Your task to perform on an android device: read, delete, or share a saved page in the chrome app Image 0: 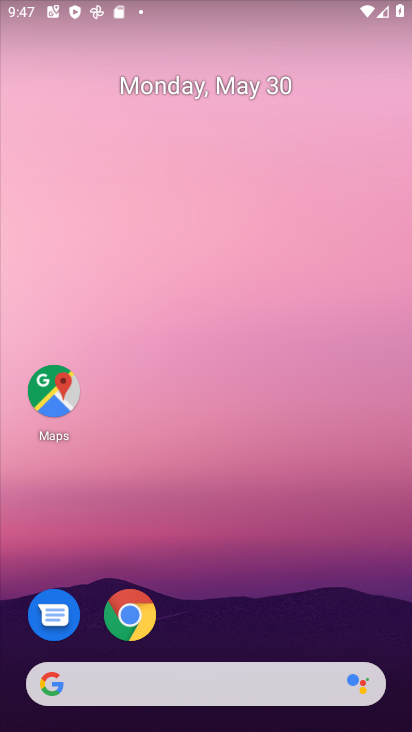
Step 0: click (134, 611)
Your task to perform on an android device: read, delete, or share a saved page in the chrome app Image 1: 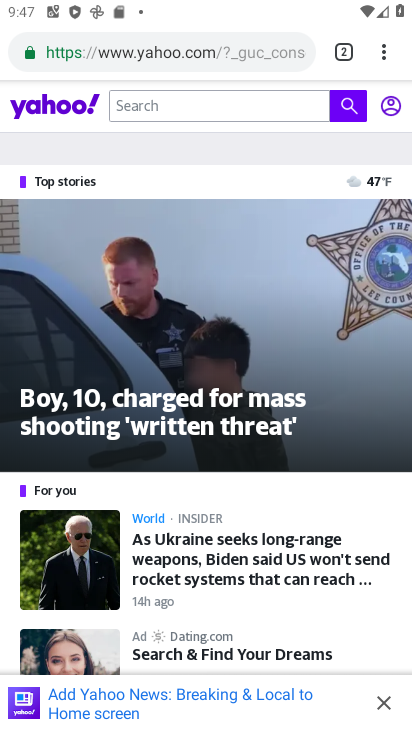
Step 1: click (385, 45)
Your task to perform on an android device: read, delete, or share a saved page in the chrome app Image 2: 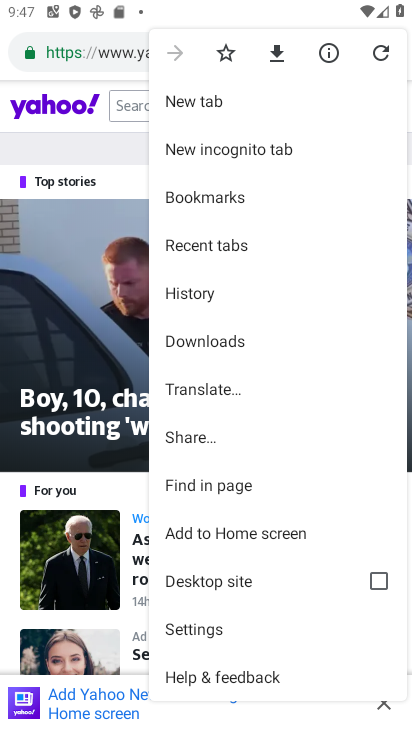
Step 2: click (221, 340)
Your task to perform on an android device: read, delete, or share a saved page in the chrome app Image 3: 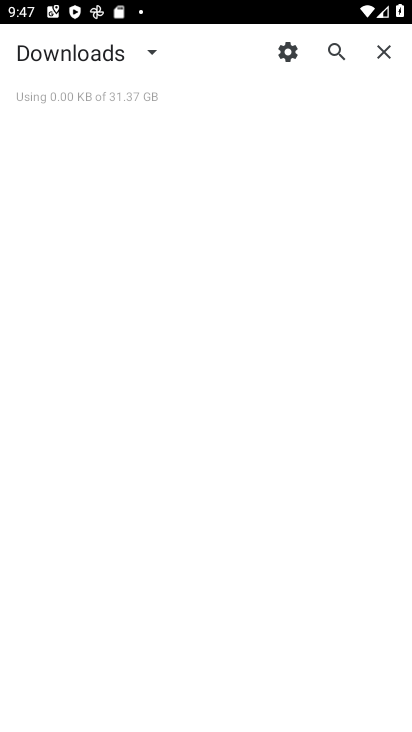
Step 3: click (105, 52)
Your task to perform on an android device: read, delete, or share a saved page in the chrome app Image 4: 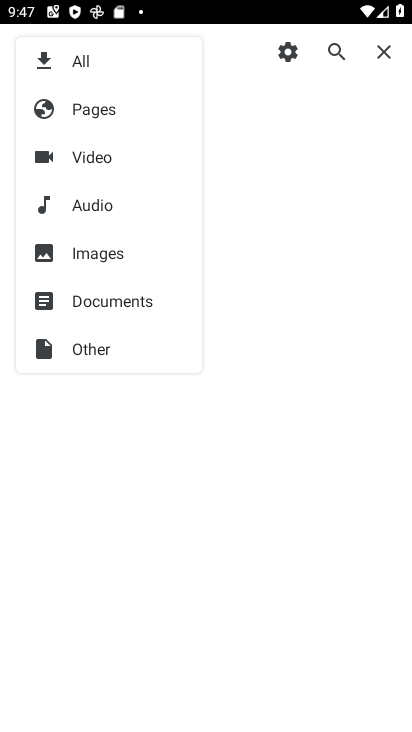
Step 4: click (117, 116)
Your task to perform on an android device: read, delete, or share a saved page in the chrome app Image 5: 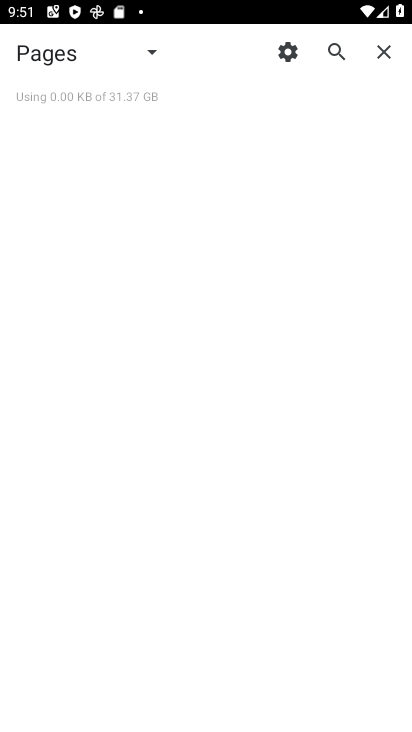
Step 5: task complete